Your task to perform on an android device: Go to calendar. Show me events next week Image 0: 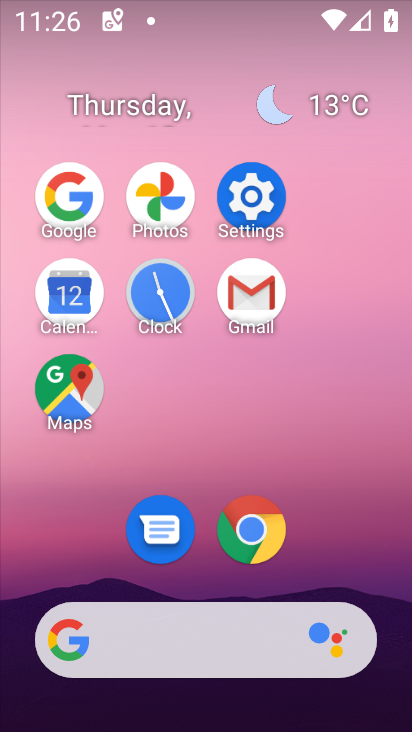
Step 0: click (76, 297)
Your task to perform on an android device: Go to calendar. Show me events next week Image 1: 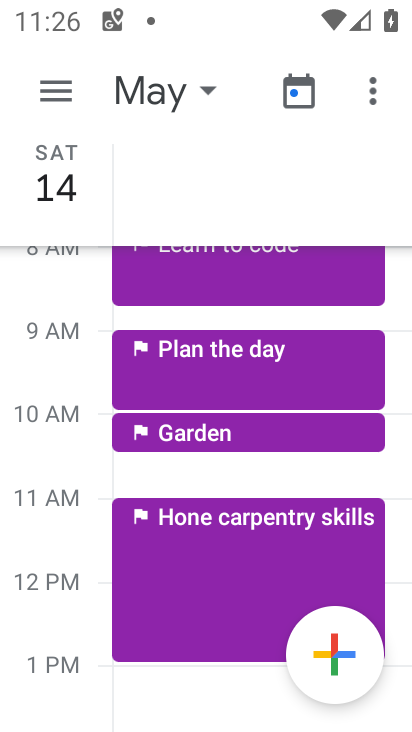
Step 1: click (50, 103)
Your task to perform on an android device: Go to calendar. Show me events next week Image 2: 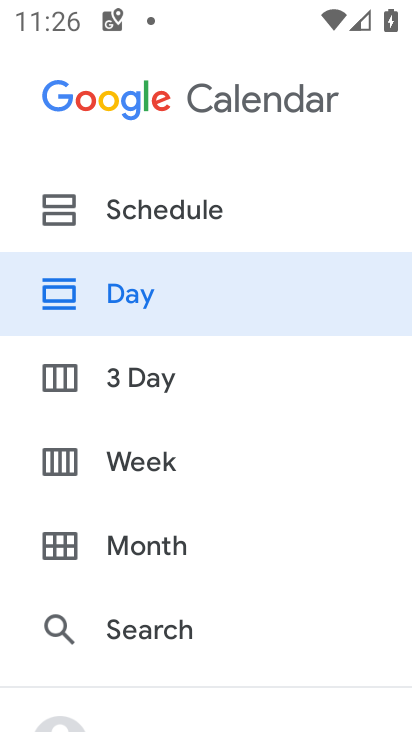
Step 2: click (129, 458)
Your task to perform on an android device: Go to calendar. Show me events next week Image 3: 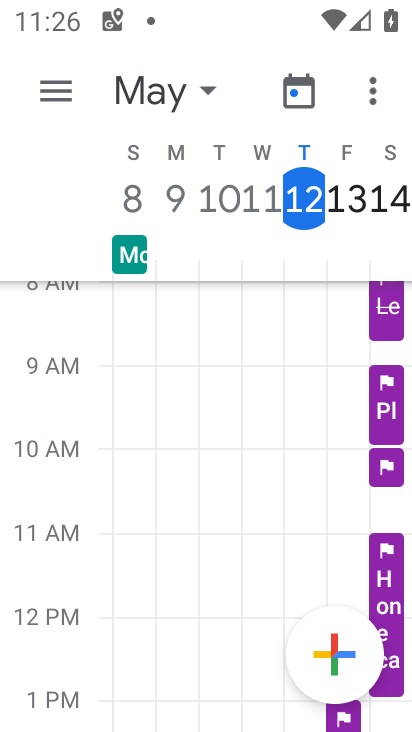
Step 3: task complete